Your task to perform on an android device: Go to Yahoo.com Image 0: 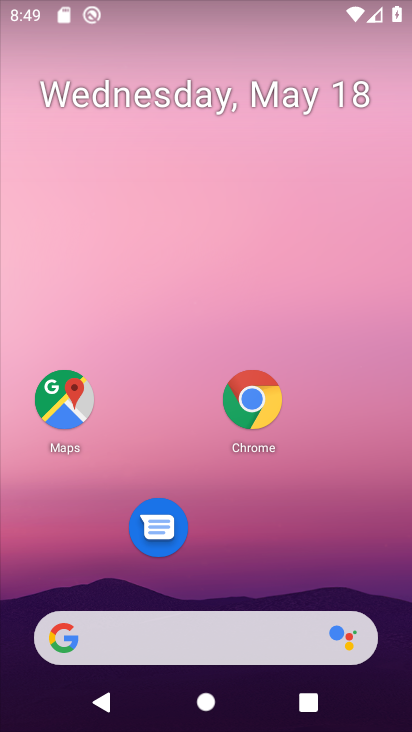
Step 0: click (245, 431)
Your task to perform on an android device: Go to Yahoo.com Image 1: 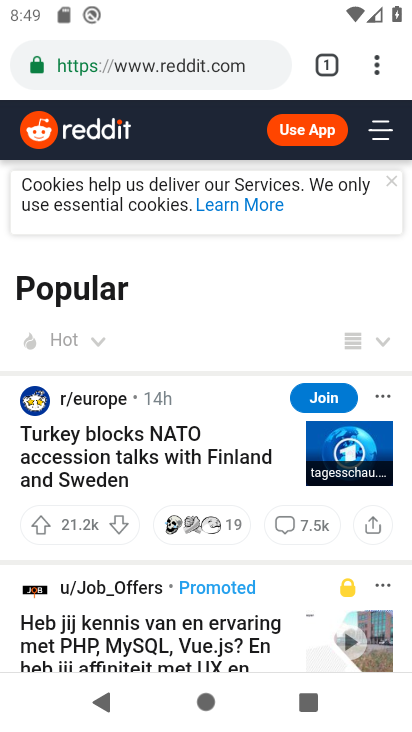
Step 1: click (178, 68)
Your task to perform on an android device: Go to Yahoo.com Image 2: 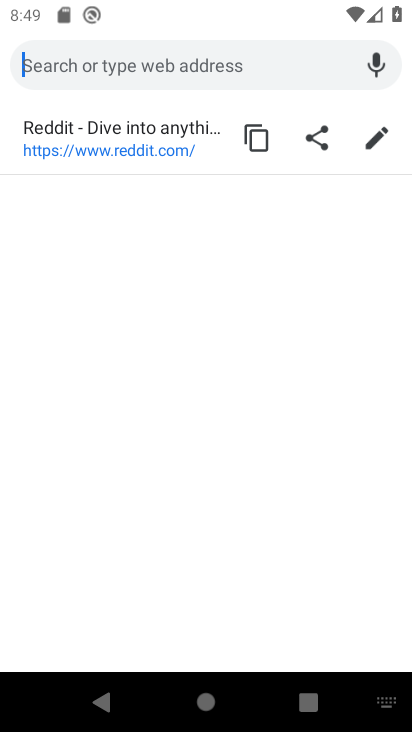
Step 2: type "www.yahoo.com"
Your task to perform on an android device: Go to Yahoo.com Image 3: 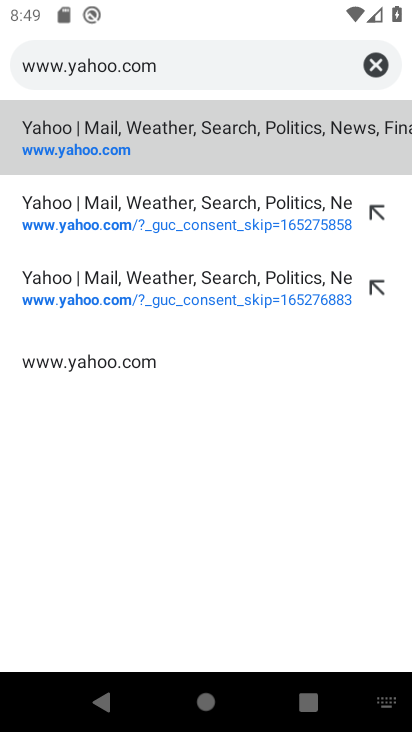
Step 3: click (116, 142)
Your task to perform on an android device: Go to Yahoo.com Image 4: 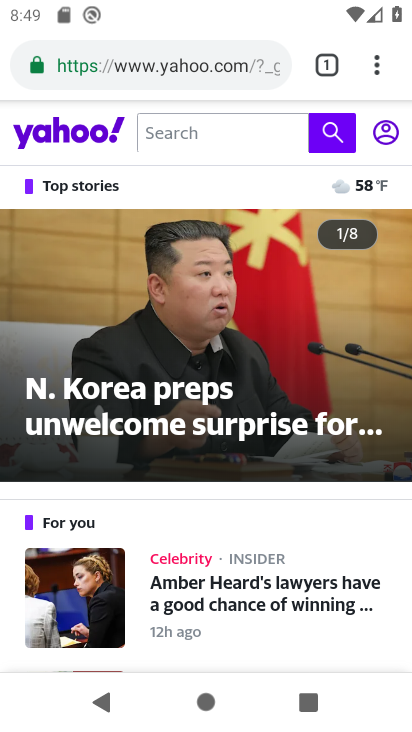
Step 4: task complete